Your task to perform on an android device: check out phone information Image 0: 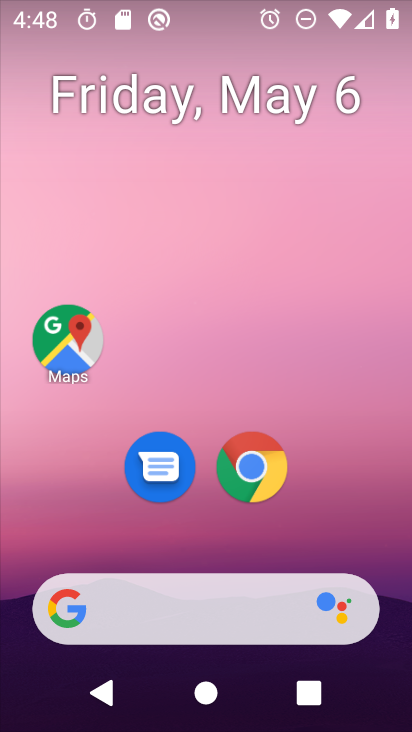
Step 0: drag from (296, 535) to (293, 120)
Your task to perform on an android device: check out phone information Image 1: 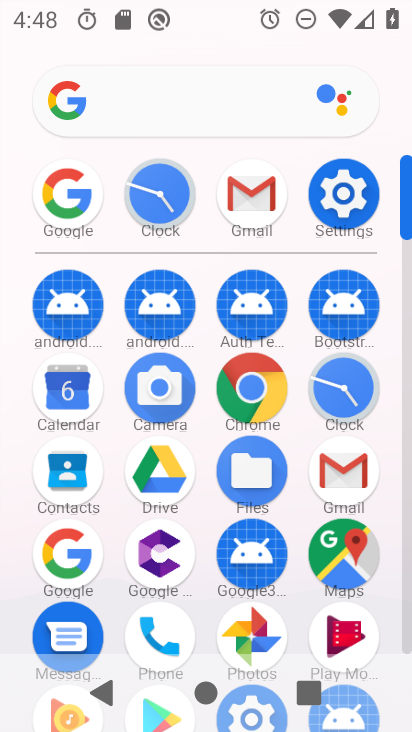
Step 1: click (353, 166)
Your task to perform on an android device: check out phone information Image 2: 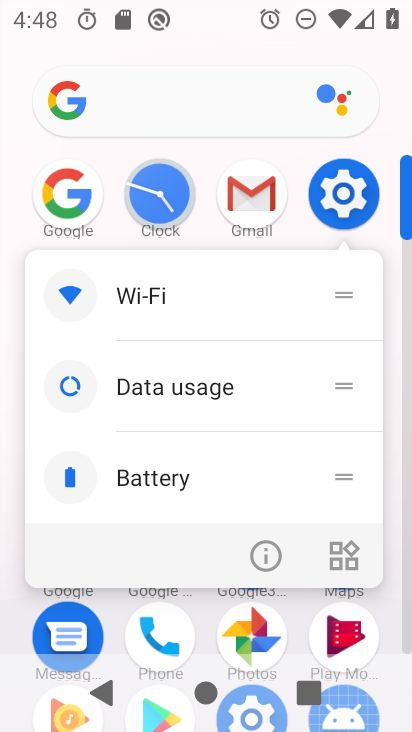
Step 2: click (348, 187)
Your task to perform on an android device: check out phone information Image 3: 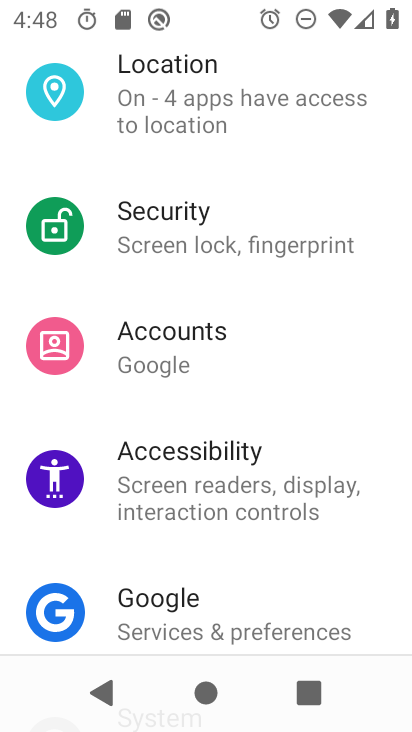
Step 3: drag from (228, 579) to (247, 174)
Your task to perform on an android device: check out phone information Image 4: 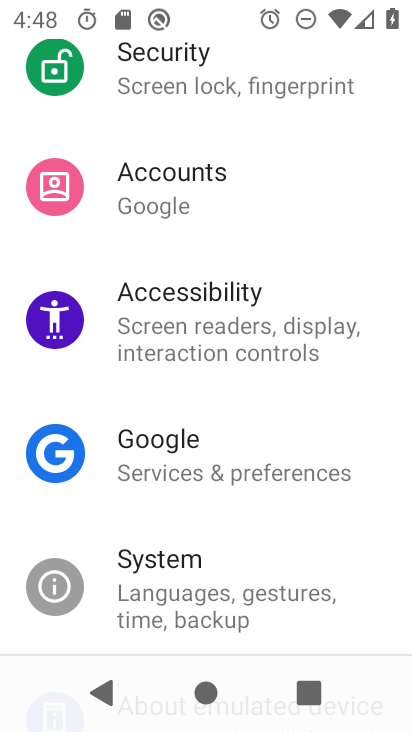
Step 4: drag from (144, 573) to (217, 213)
Your task to perform on an android device: check out phone information Image 5: 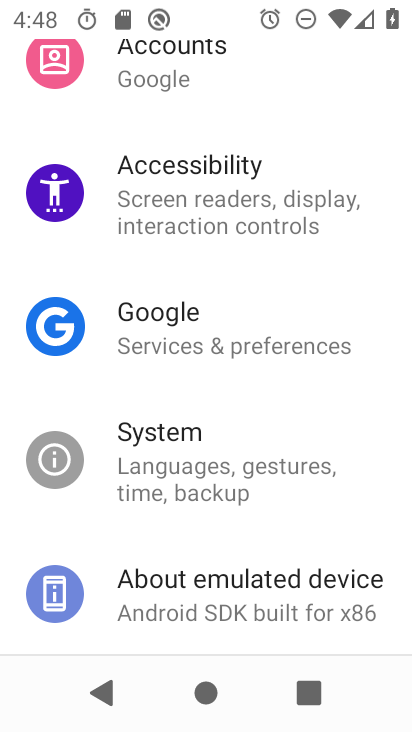
Step 5: click (196, 590)
Your task to perform on an android device: check out phone information Image 6: 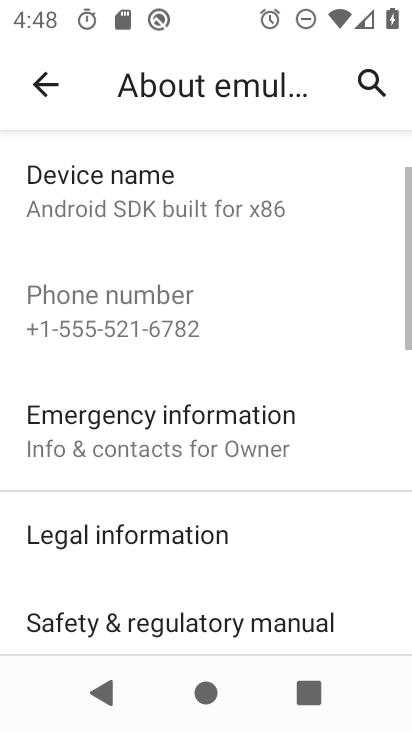
Step 6: task complete